Your task to perform on an android device: Search for vegetarian restaurants on Maps Image 0: 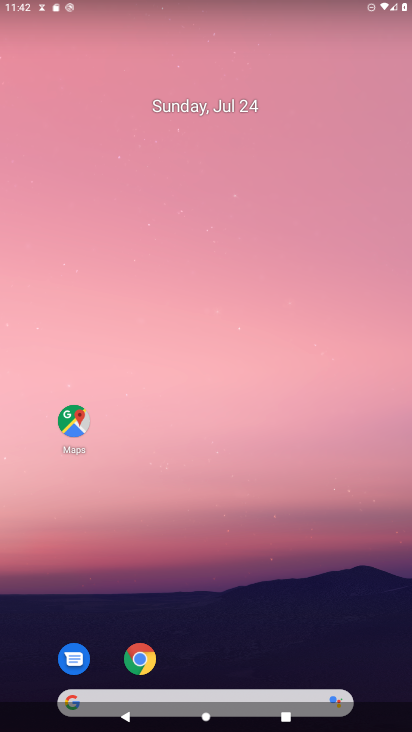
Step 0: click (277, 289)
Your task to perform on an android device: Search for vegetarian restaurants on Maps Image 1: 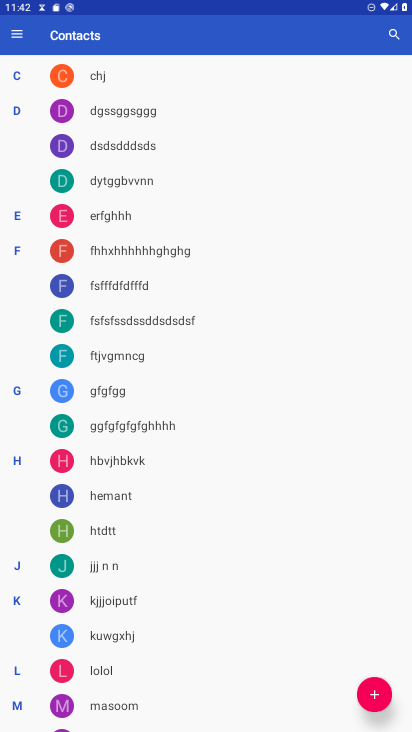
Step 1: press home button
Your task to perform on an android device: Search for vegetarian restaurants on Maps Image 2: 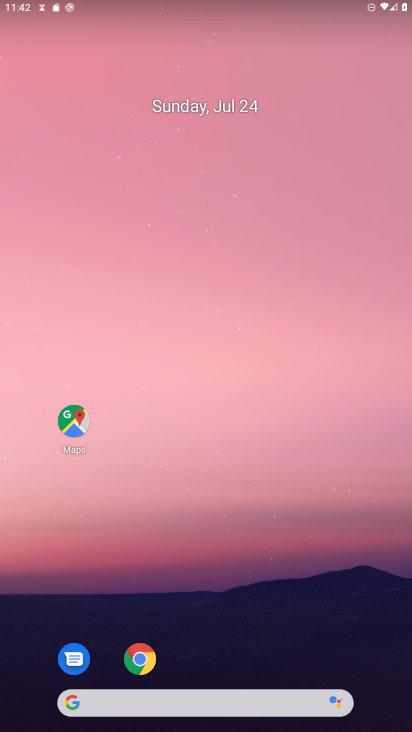
Step 2: click (73, 430)
Your task to perform on an android device: Search for vegetarian restaurants on Maps Image 3: 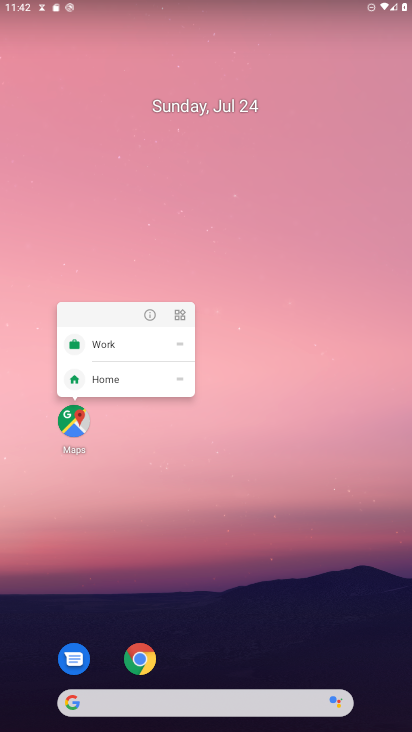
Step 3: click (73, 430)
Your task to perform on an android device: Search for vegetarian restaurants on Maps Image 4: 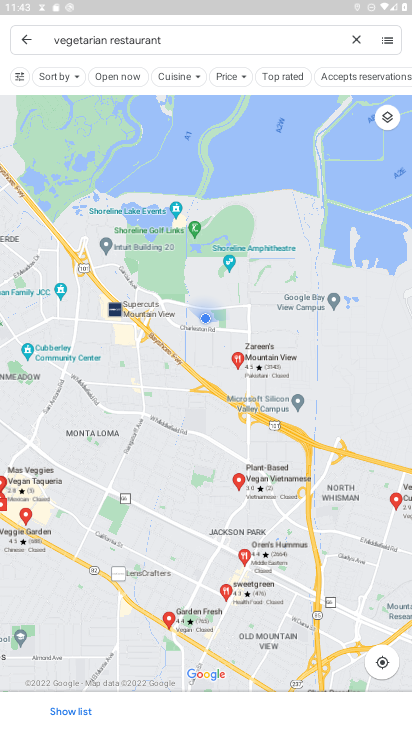
Step 4: task complete